Your task to perform on an android device: read, delete, or share a saved page in the chrome app Image 0: 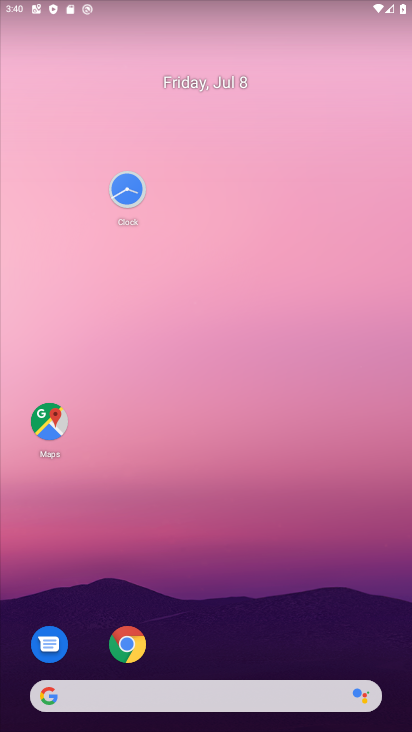
Step 0: drag from (251, 631) to (185, 314)
Your task to perform on an android device: read, delete, or share a saved page in the chrome app Image 1: 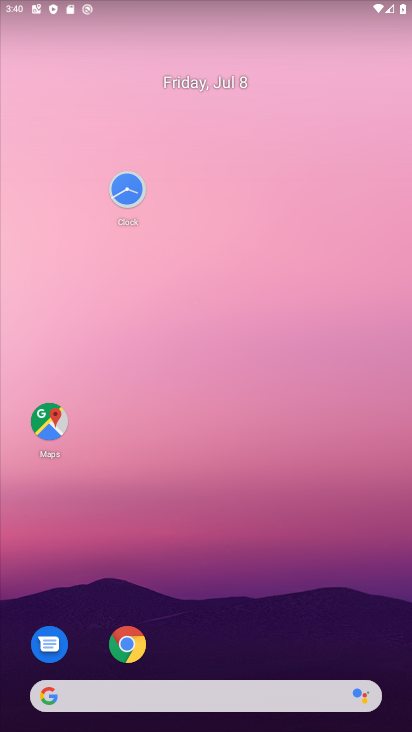
Step 1: drag from (183, 572) to (149, 148)
Your task to perform on an android device: read, delete, or share a saved page in the chrome app Image 2: 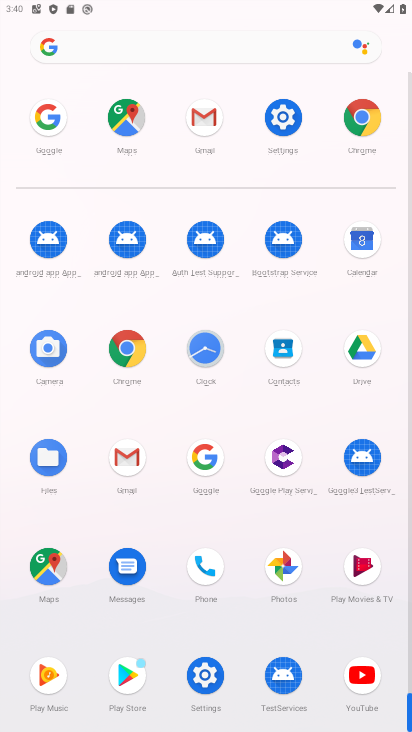
Step 2: click (177, 122)
Your task to perform on an android device: read, delete, or share a saved page in the chrome app Image 3: 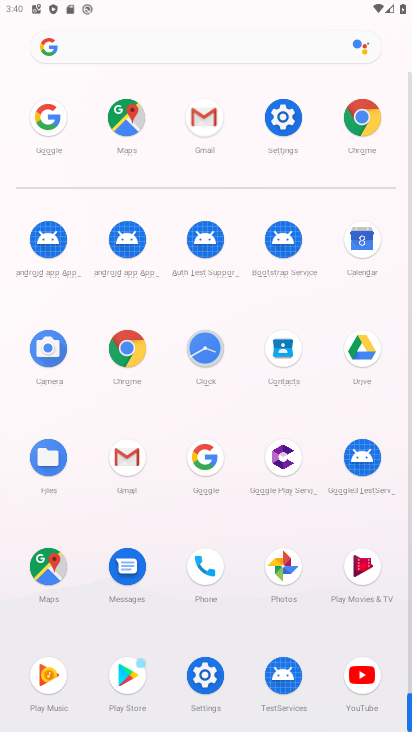
Step 3: drag from (254, 408) to (164, 85)
Your task to perform on an android device: read, delete, or share a saved page in the chrome app Image 4: 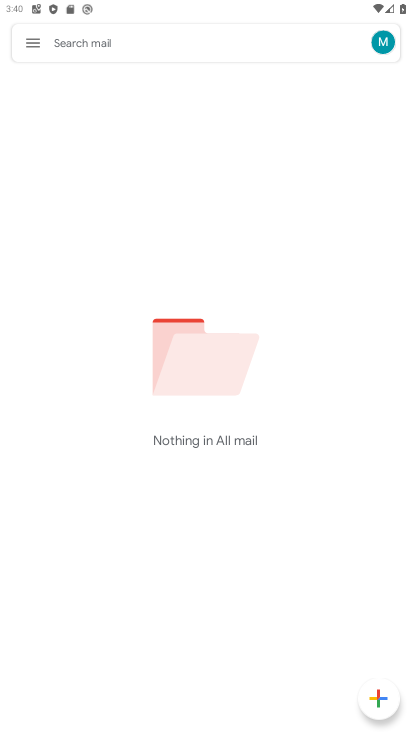
Step 4: click (151, 79)
Your task to perform on an android device: read, delete, or share a saved page in the chrome app Image 5: 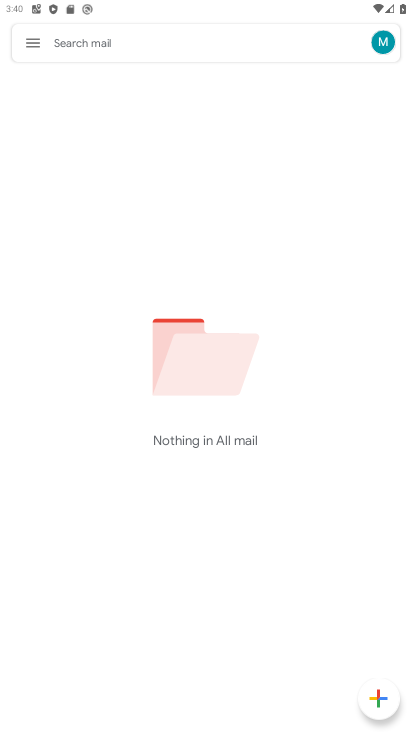
Step 5: click (139, 86)
Your task to perform on an android device: read, delete, or share a saved page in the chrome app Image 6: 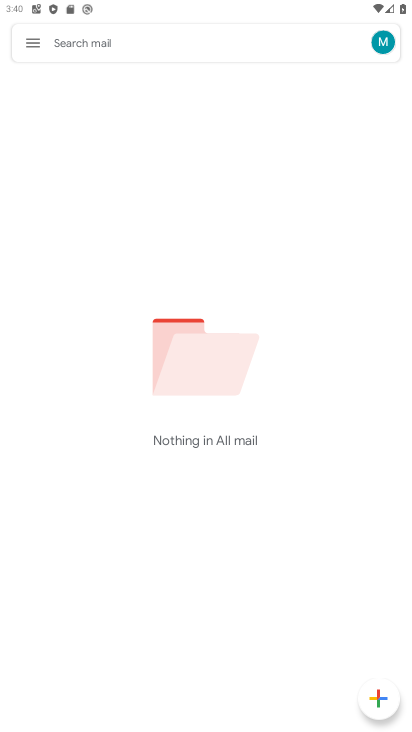
Step 6: press back button
Your task to perform on an android device: read, delete, or share a saved page in the chrome app Image 7: 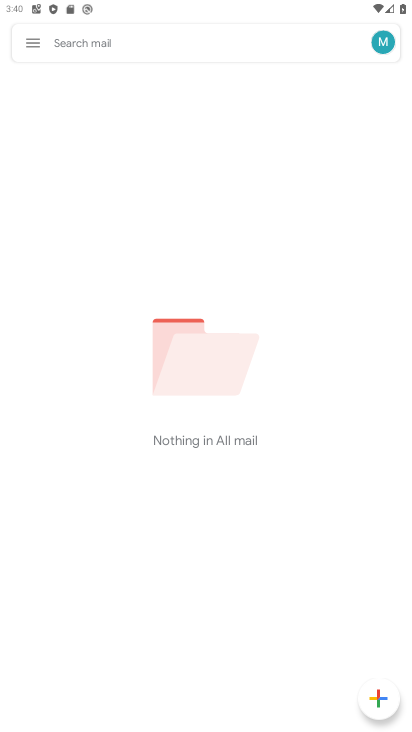
Step 7: press back button
Your task to perform on an android device: read, delete, or share a saved page in the chrome app Image 8: 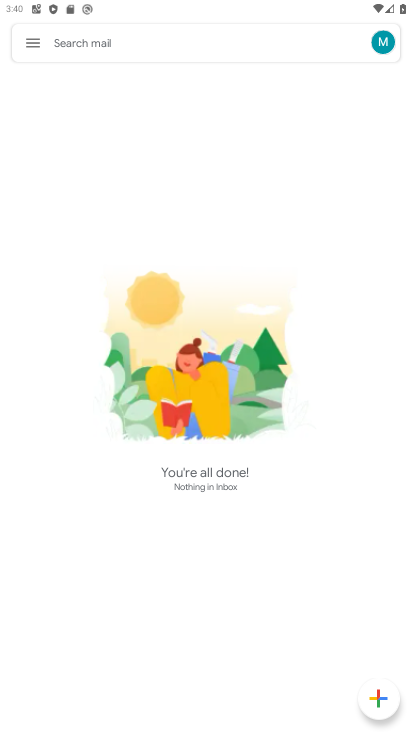
Step 8: press back button
Your task to perform on an android device: read, delete, or share a saved page in the chrome app Image 9: 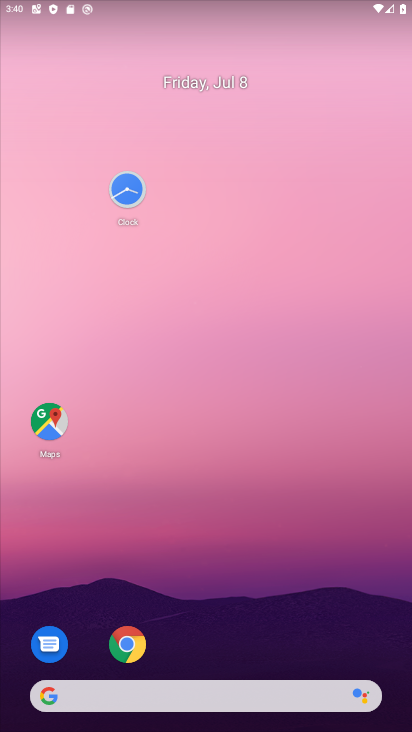
Step 9: drag from (146, 289) to (93, 97)
Your task to perform on an android device: read, delete, or share a saved page in the chrome app Image 10: 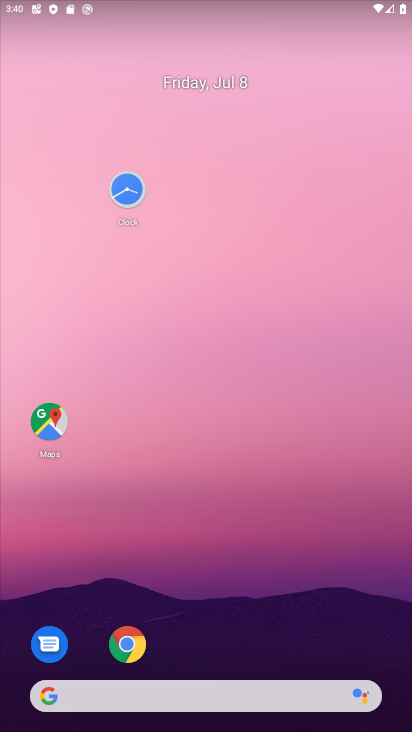
Step 10: drag from (244, 589) to (153, 236)
Your task to perform on an android device: read, delete, or share a saved page in the chrome app Image 11: 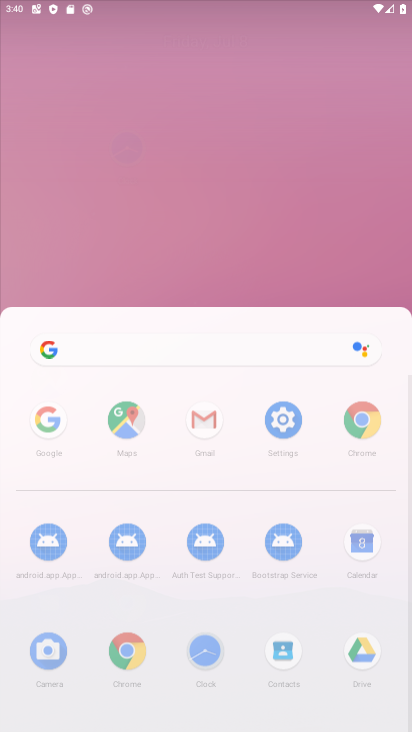
Step 11: drag from (274, 520) to (110, 17)
Your task to perform on an android device: read, delete, or share a saved page in the chrome app Image 12: 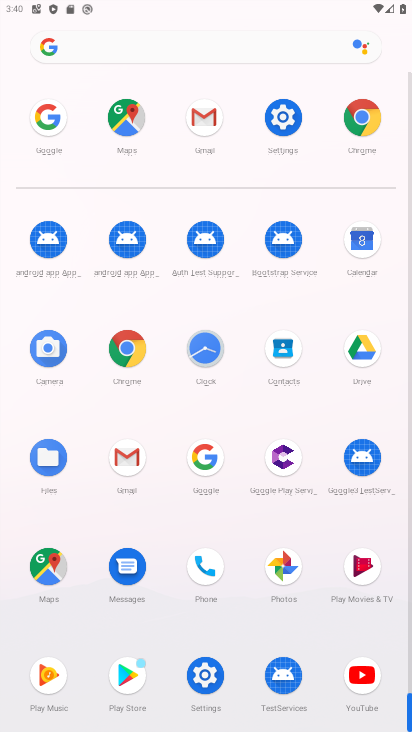
Step 12: click (365, 122)
Your task to perform on an android device: read, delete, or share a saved page in the chrome app Image 13: 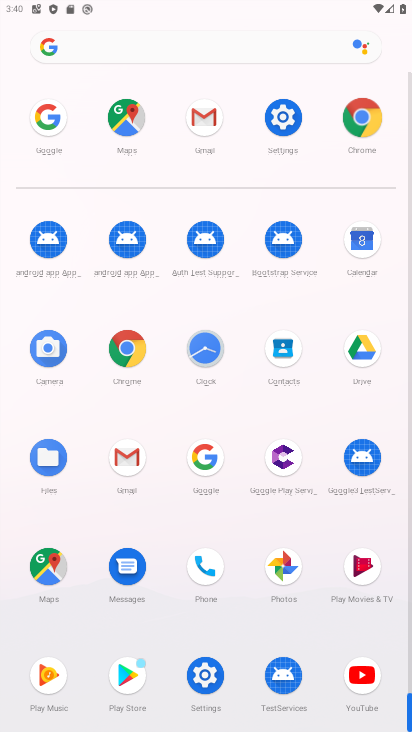
Step 13: click (365, 122)
Your task to perform on an android device: read, delete, or share a saved page in the chrome app Image 14: 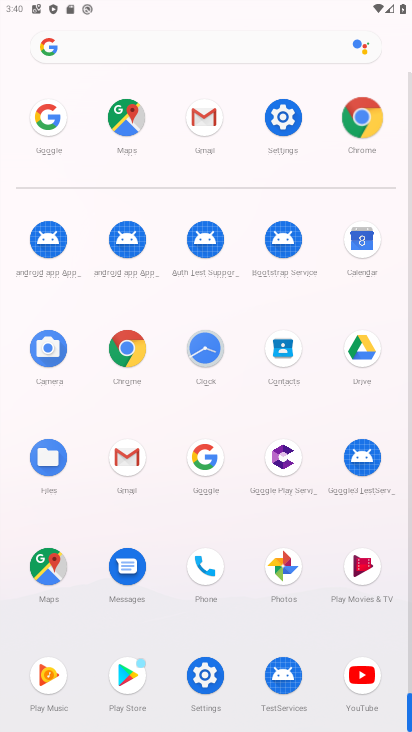
Step 14: click (365, 122)
Your task to perform on an android device: read, delete, or share a saved page in the chrome app Image 15: 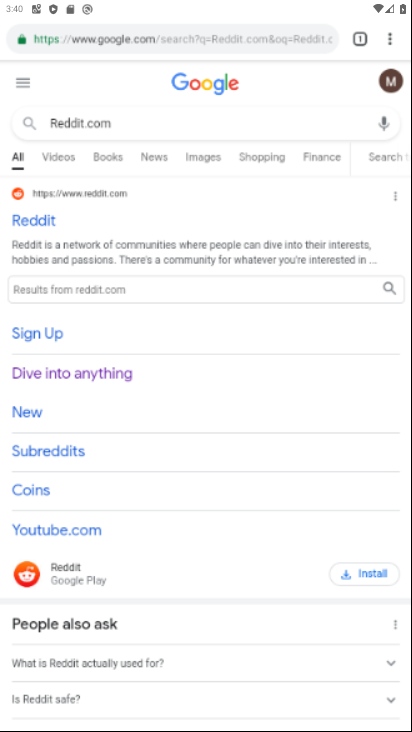
Step 15: click (368, 123)
Your task to perform on an android device: read, delete, or share a saved page in the chrome app Image 16: 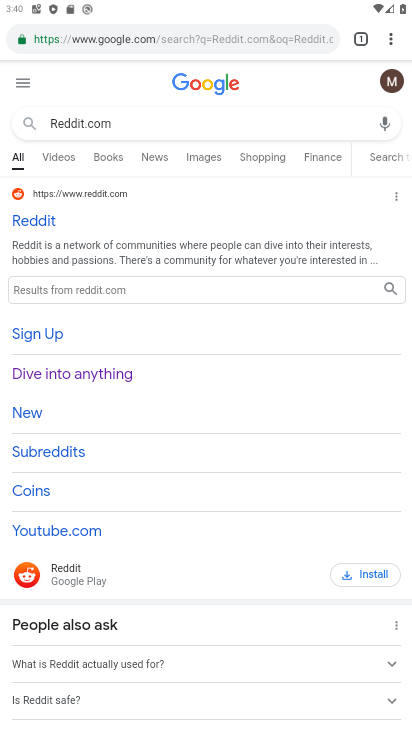
Step 16: drag from (382, 36) to (277, 265)
Your task to perform on an android device: read, delete, or share a saved page in the chrome app Image 17: 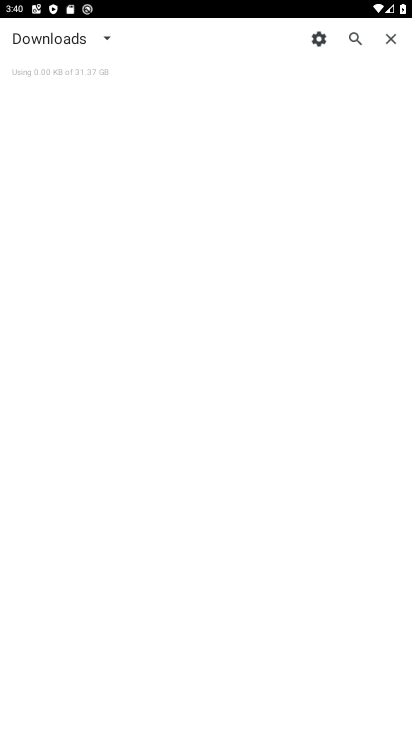
Step 17: click (103, 36)
Your task to perform on an android device: read, delete, or share a saved page in the chrome app Image 18: 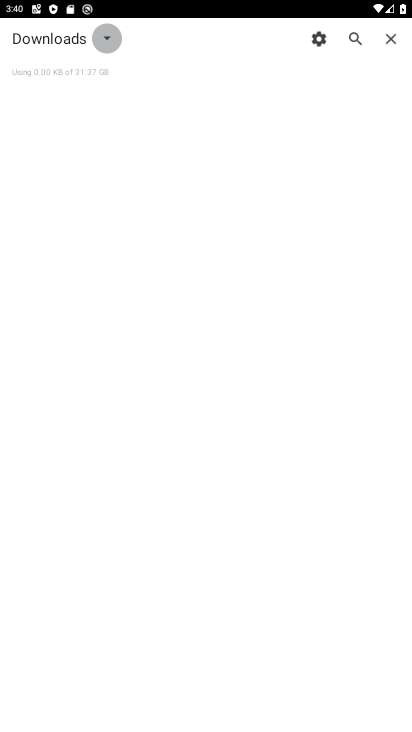
Step 18: click (104, 34)
Your task to perform on an android device: read, delete, or share a saved page in the chrome app Image 19: 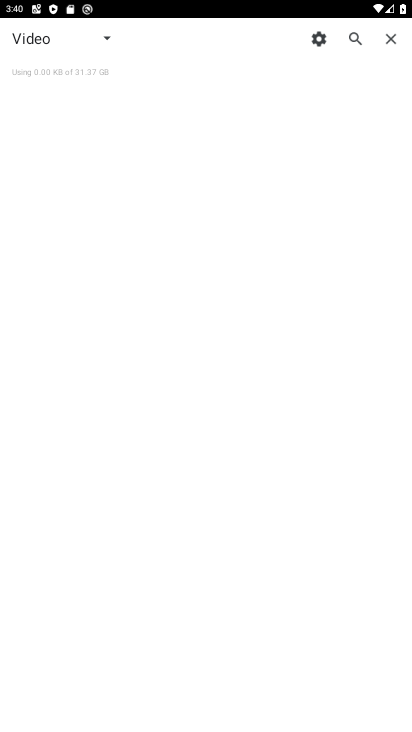
Step 19: task complete